Your task to perform on an android device: Install the Twitter app Image 0: 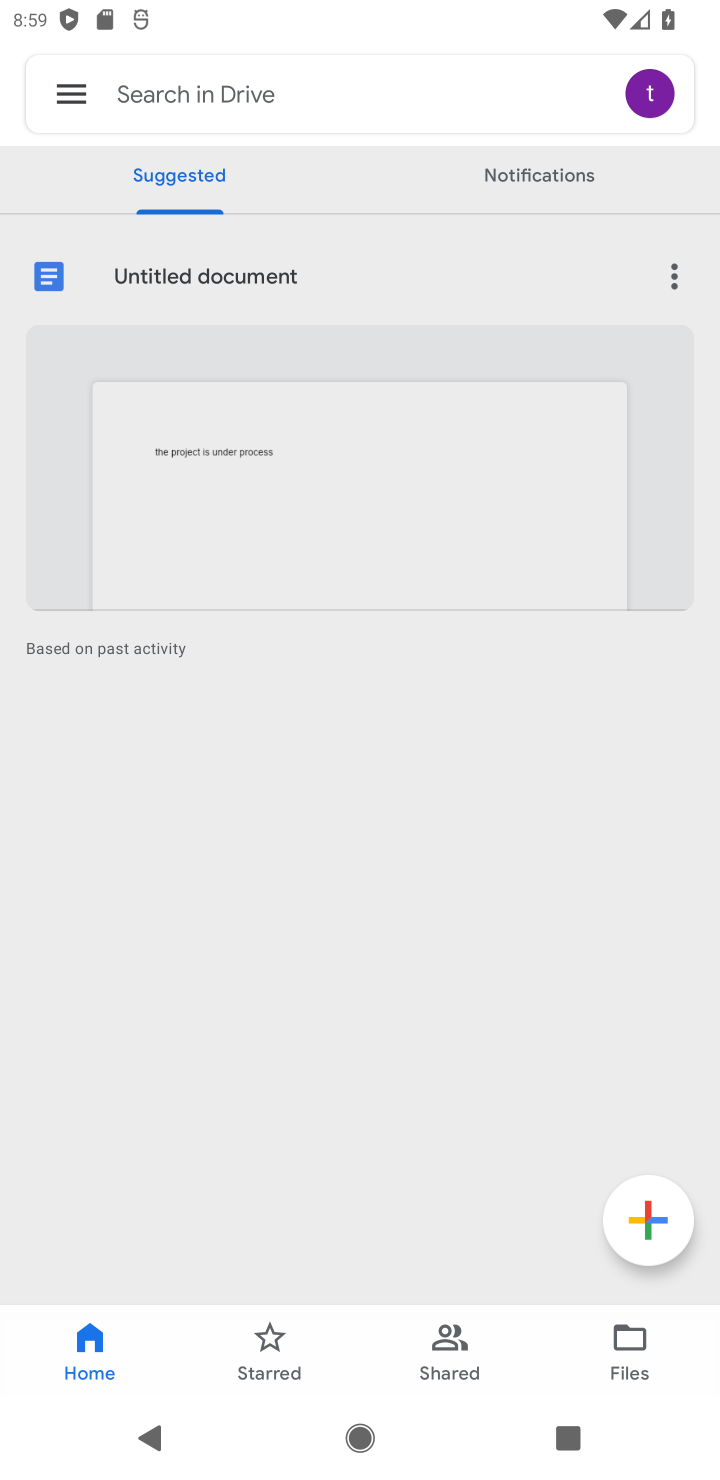
Step 0: press home button
Your task to perform on an android device: Install the Twitter app Image 1: 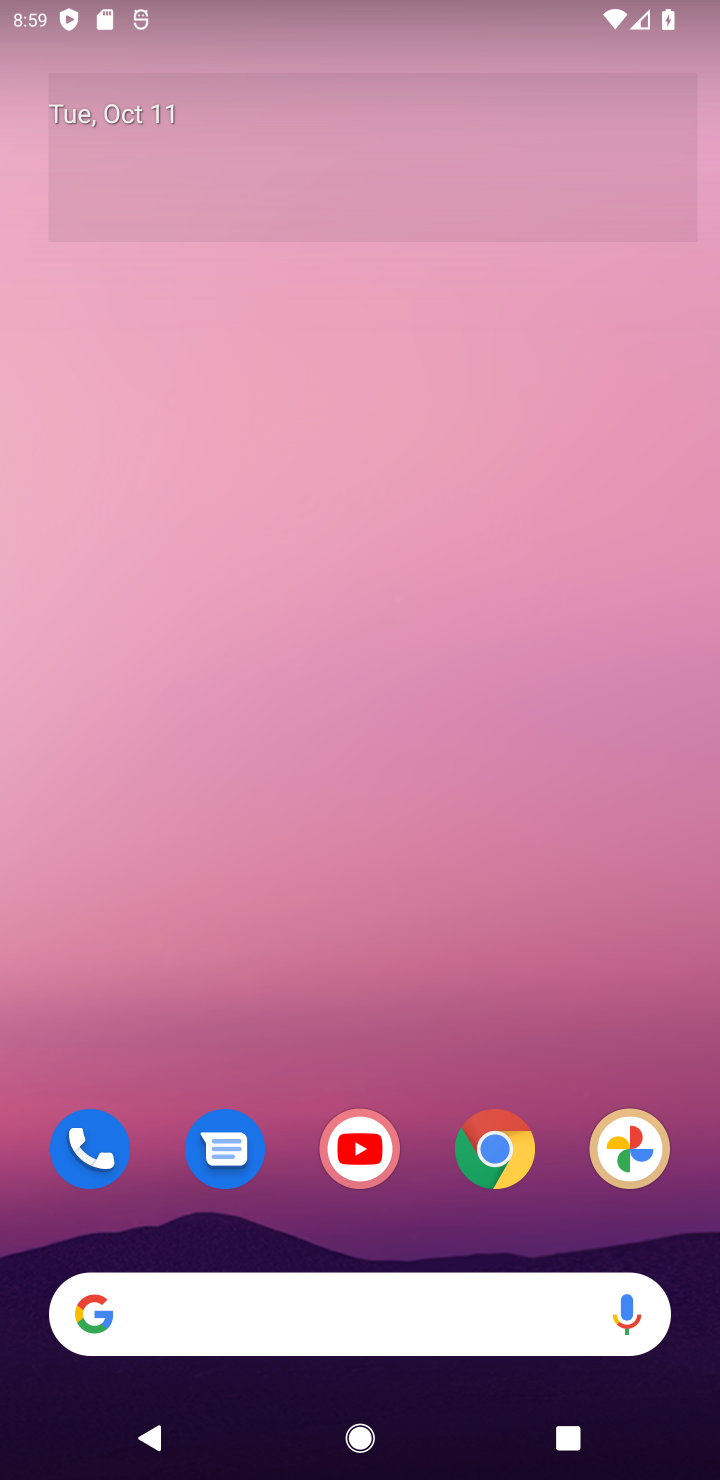
Step 1: drag from (274, 1231) to (444, 7)
Your task to perform on an android device: Install the Twitter app Image 2: 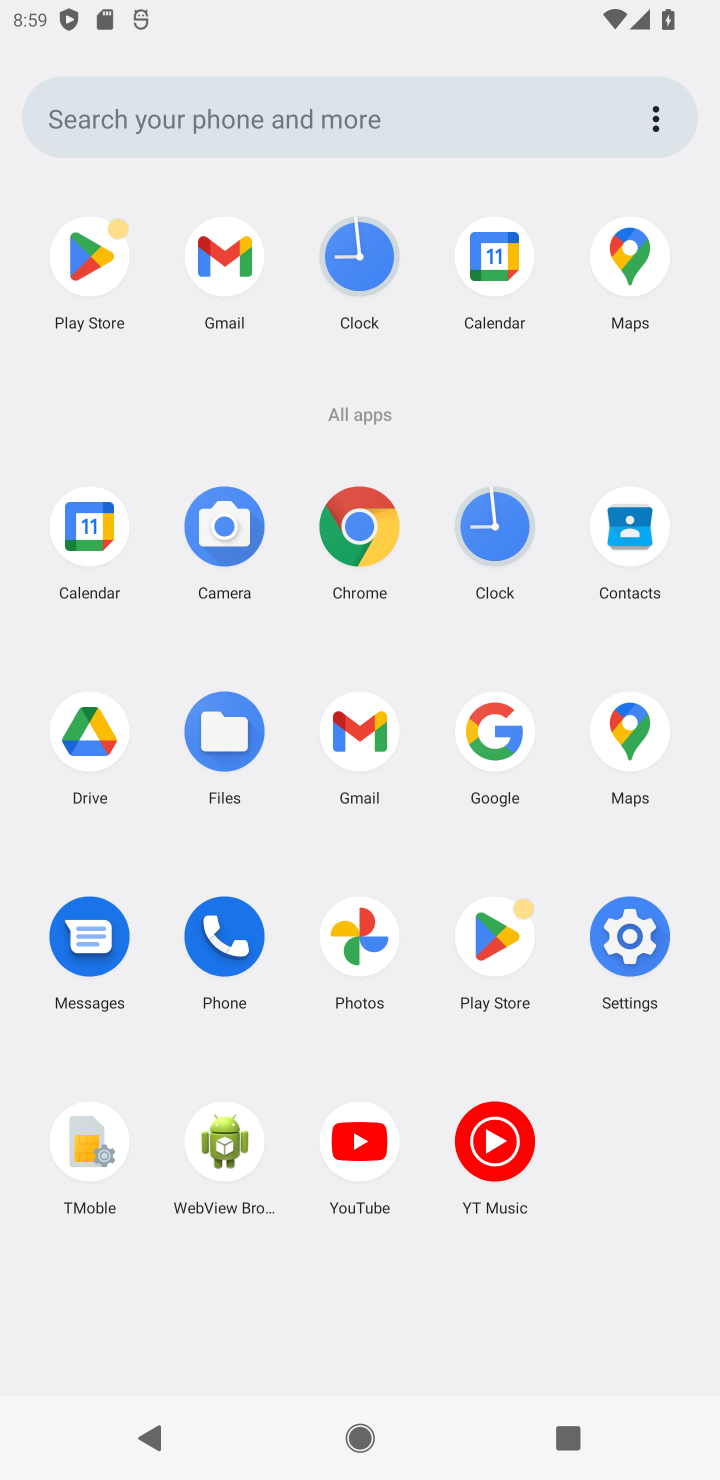
Step 2: click (497, 925)
Your task to perform on an android device: Install the Twitter app Image 3: 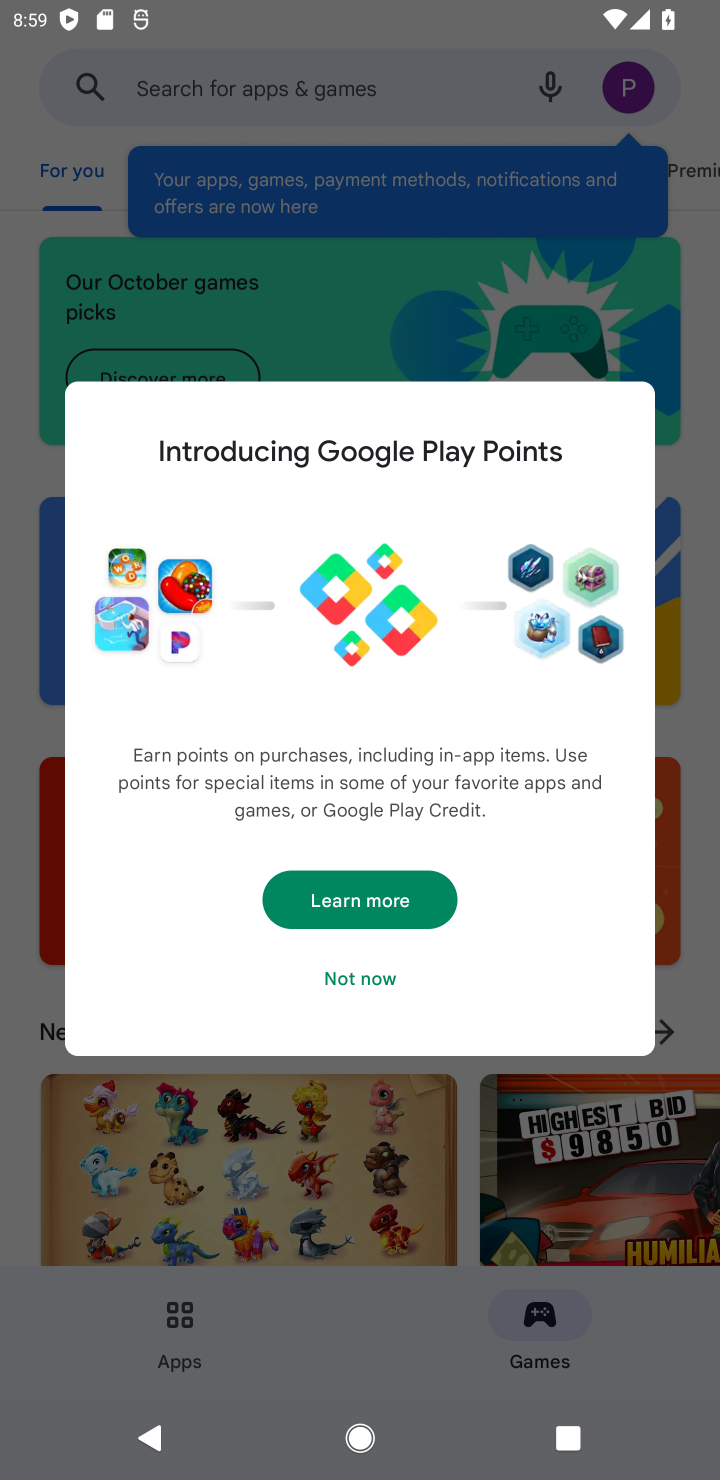
Step 3: click (379, 981)
Your task to perform on an android device: Install the Twitter app Image 4: 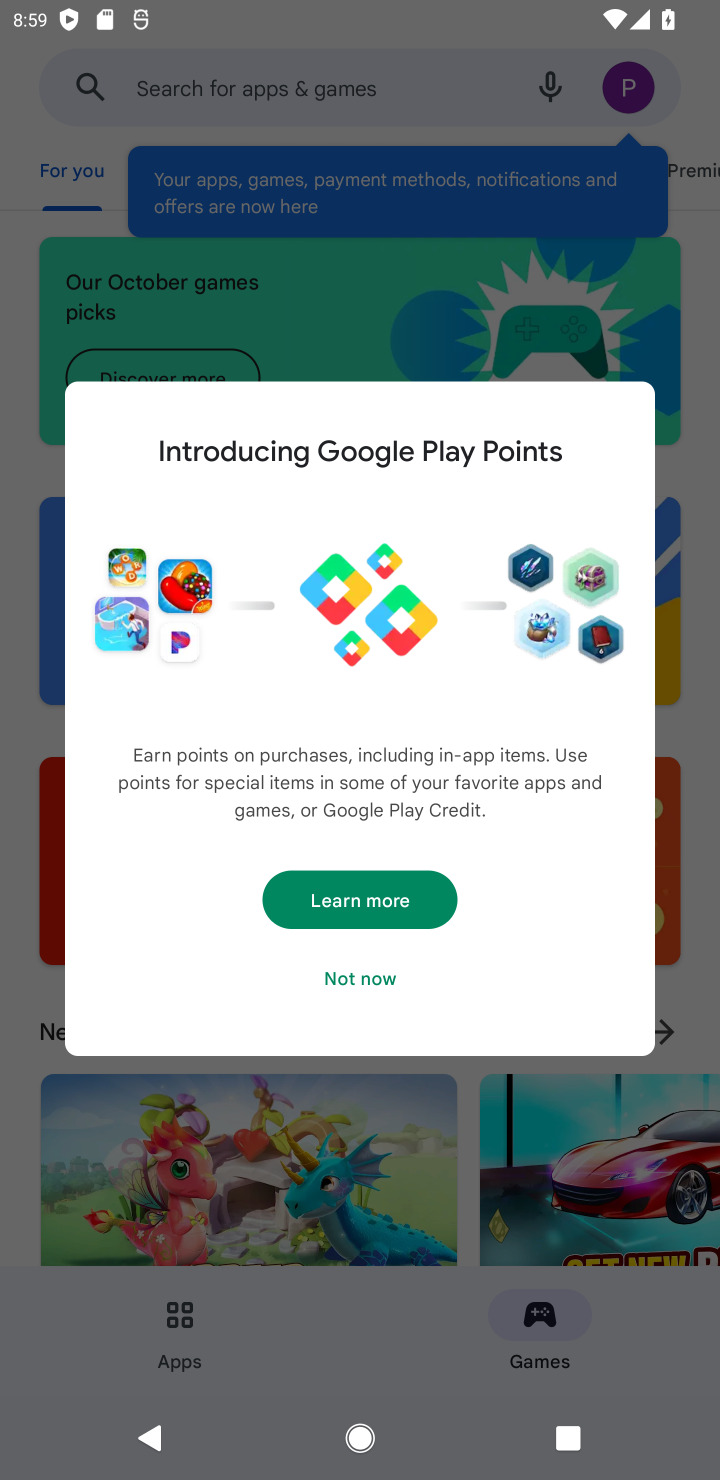
Step 4: click (299, 115)
Your task to perform on an android device: Install the Twitter app Image 5: 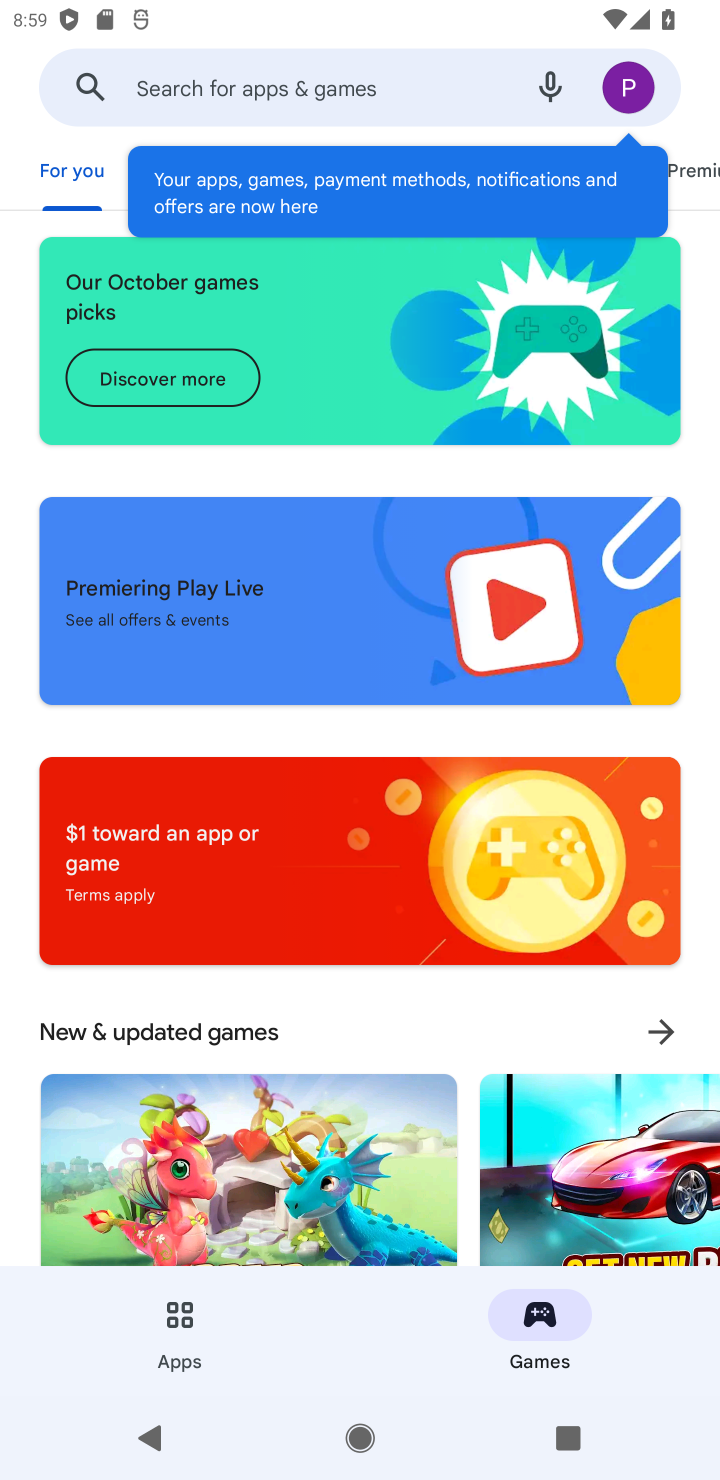
Step 5: click (290, 94)
Your task to perform on an android device: Install the Twitter app Image 6: 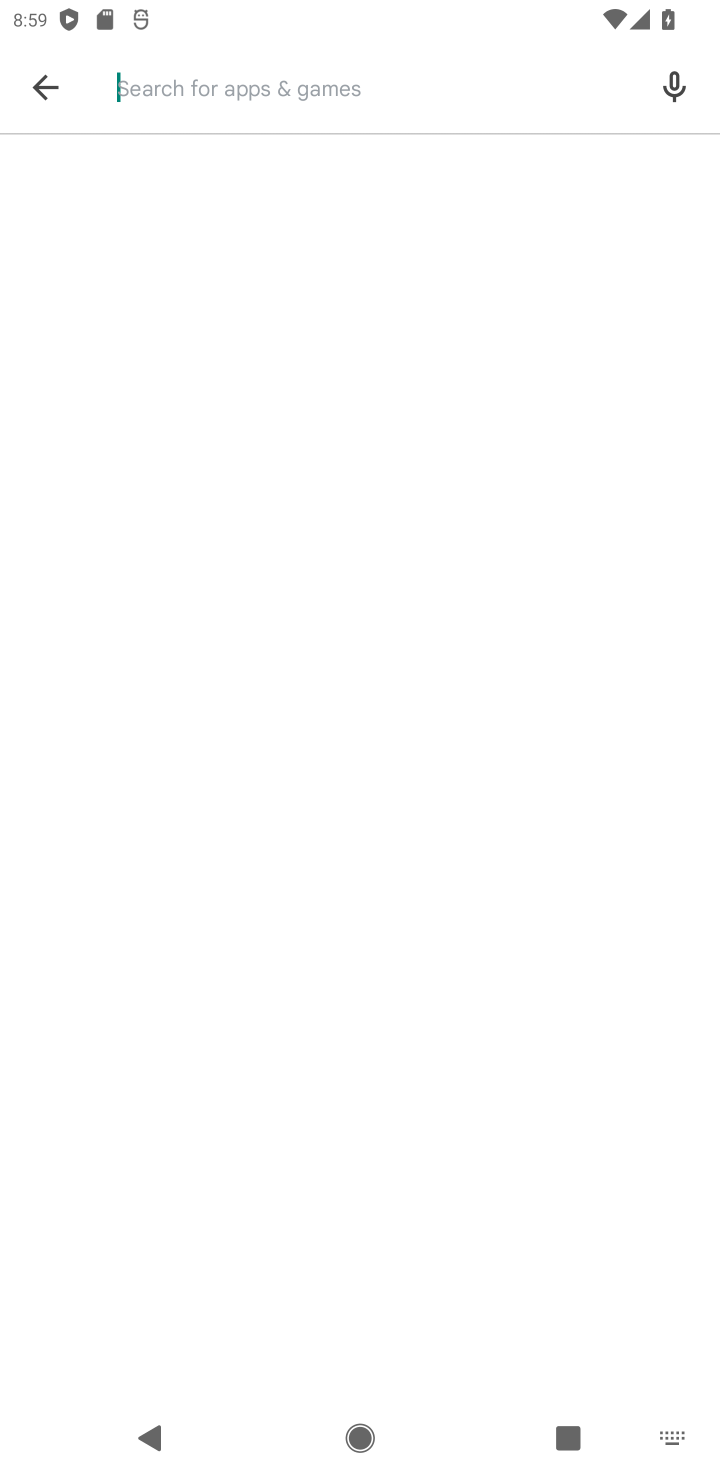
Step 6: click (288, 89)
Your task to perform on an android device: Install the Twitter app Image 7: 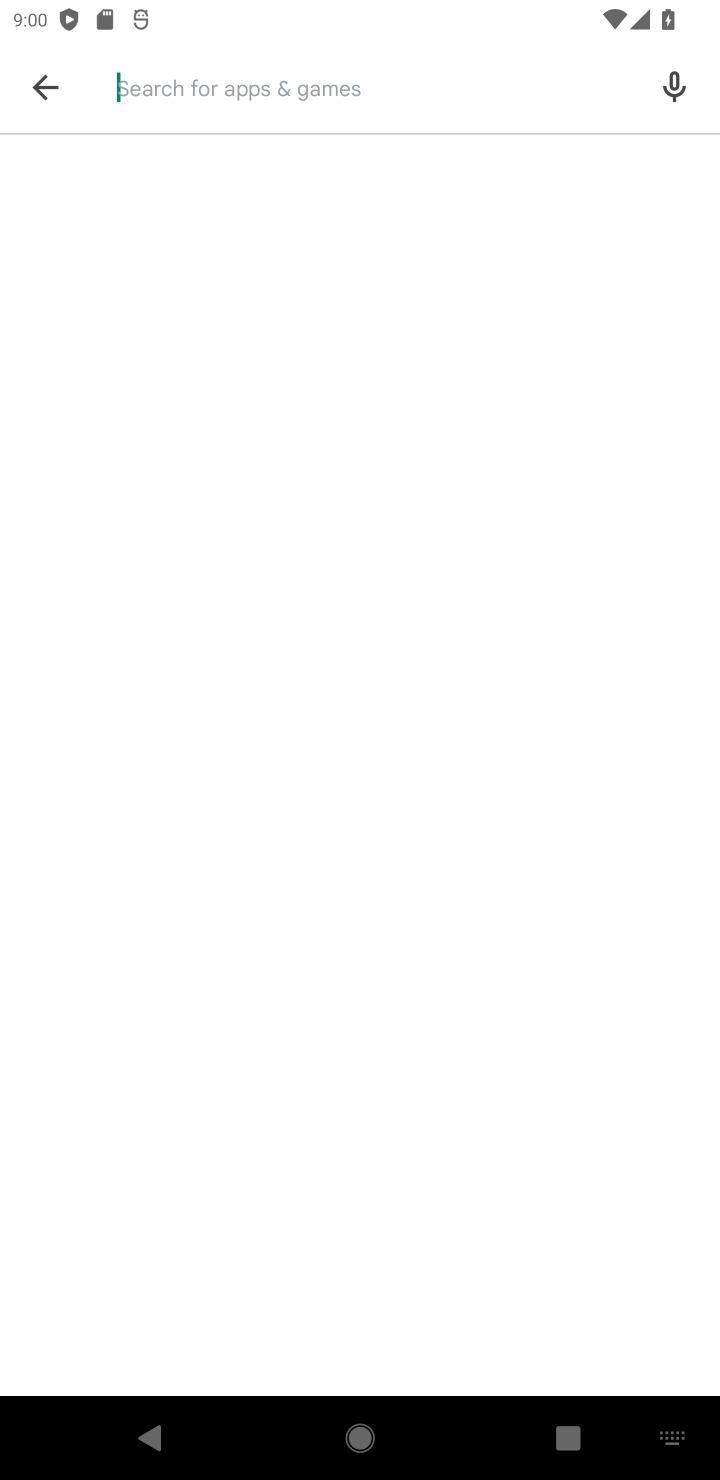
Step 7: type "Twitter app"
Your task to perform on an android device: Install the Twitter app Image 8: 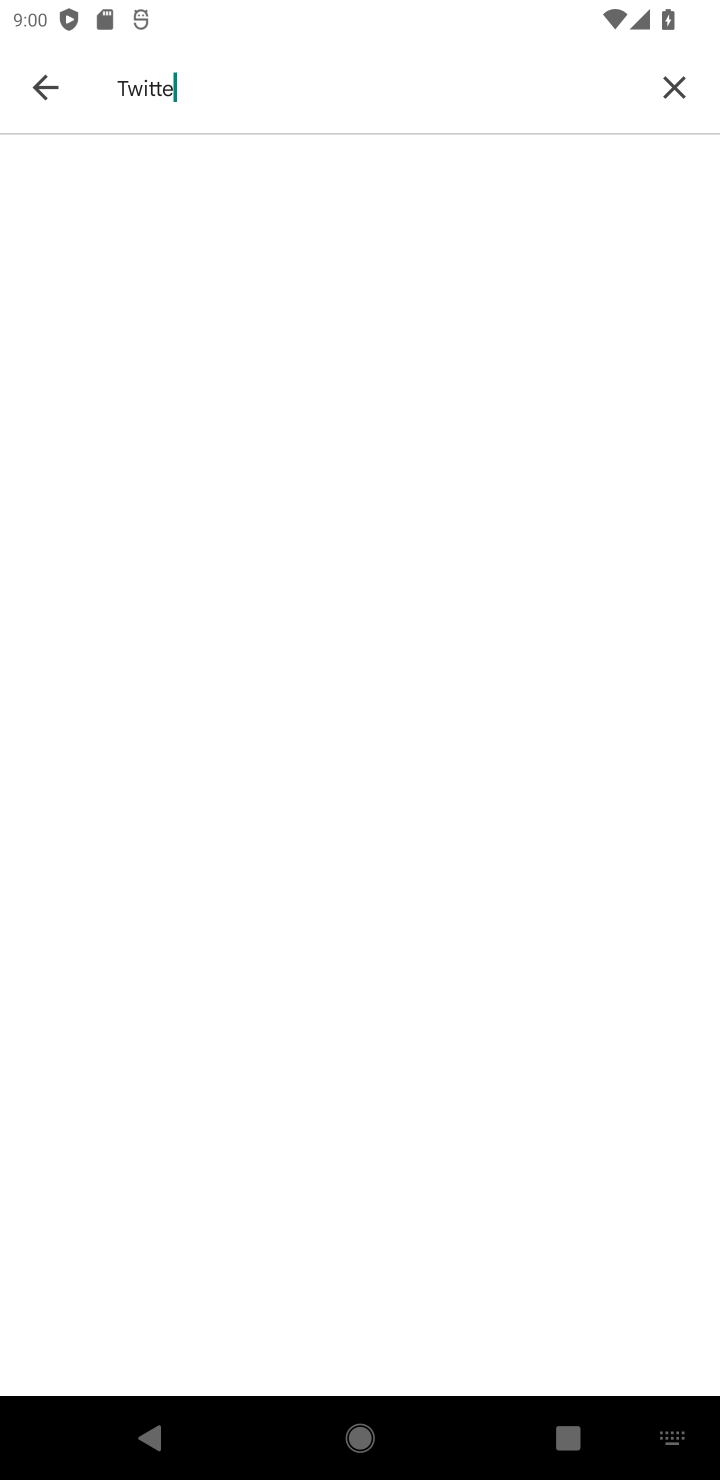
Step 8: press enter
Your task to perform on an android device: Install the Twitter app Image 9: 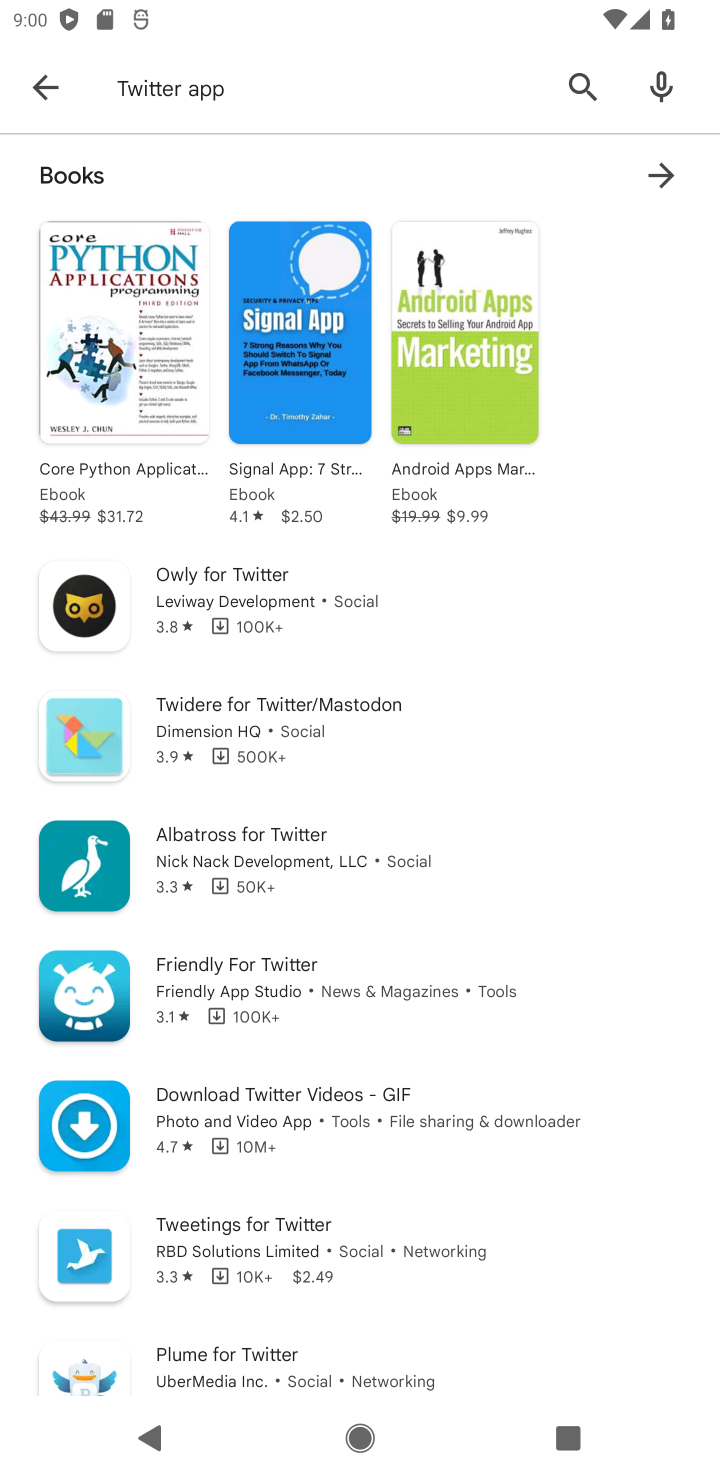
Step 9: task complete